Your task to perform on an android device: Go to Reddit.com Image 0: 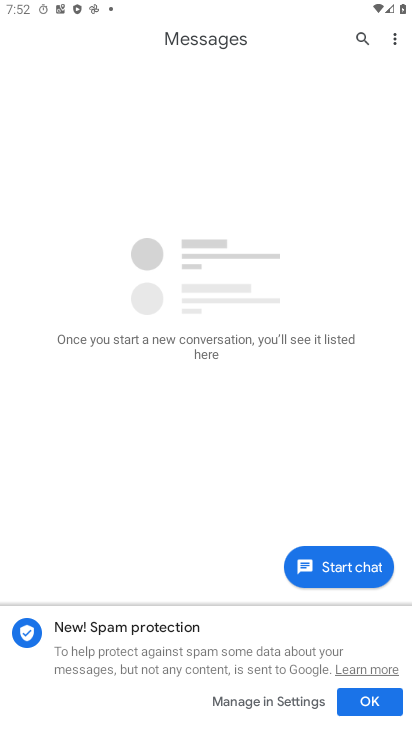
Step 0: press home button
Your task to perform on an android device: Go to Reddit.com Image 1: 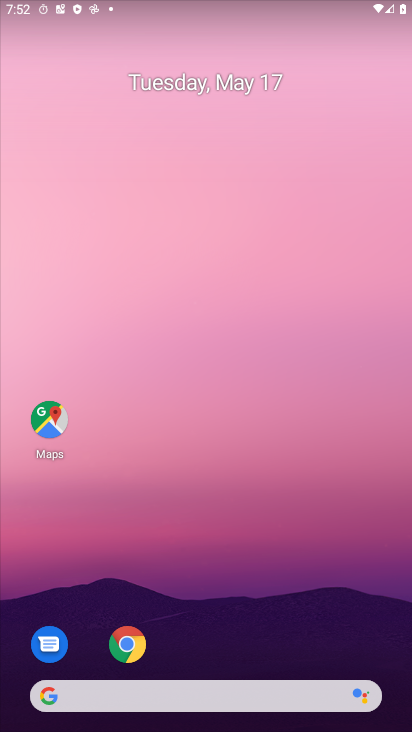
Step 1: drag from (368, 626) to (207, 97)
Your task to perform on an android device: Go to Reddit.com Image 2: 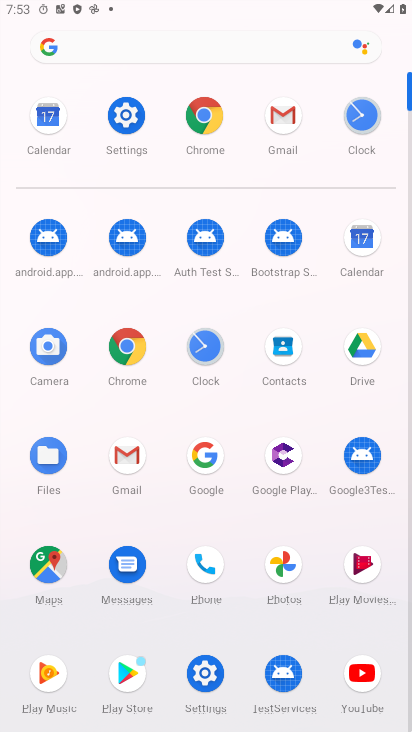
Step 2: click (204, 454)
Your task to perform on an android device: Go to Reddit.com Image 3: 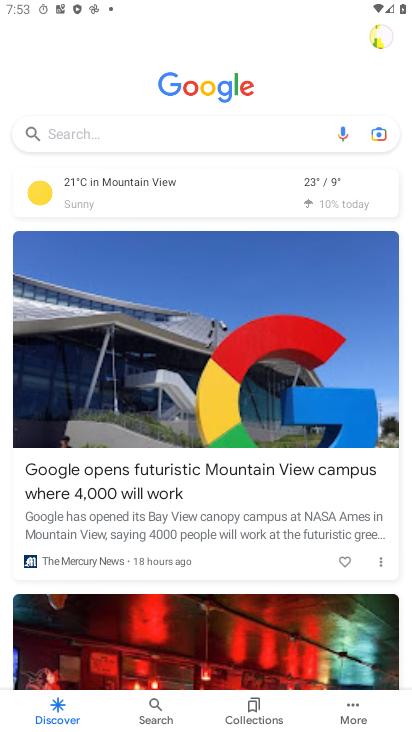
Step 3: click (110, 116)
Your task to perform on an android device: Go to Reddit.com Image 4: 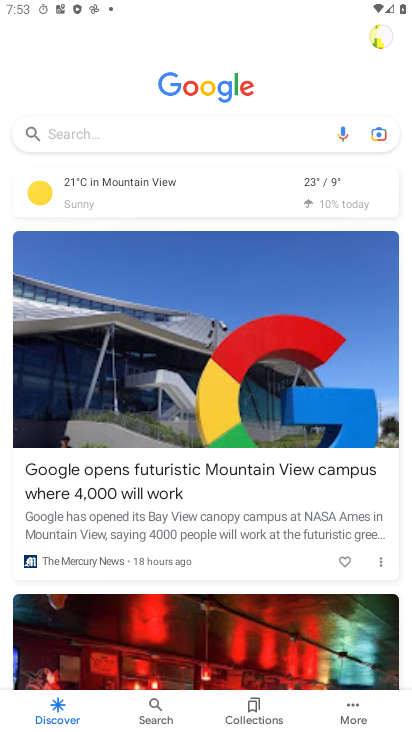
Step 4: click (78, 127)
Your task to perform on an android device: Go to Reddit.com Image 5: 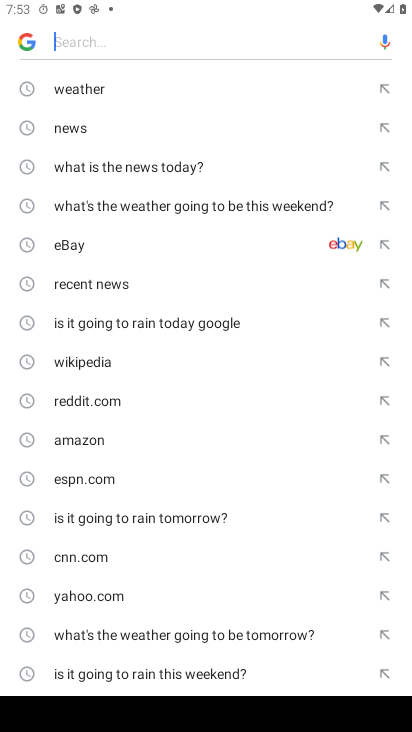
Step 5: click (131, 402)
Your task to perform on an android device: Go to Reddit.com Image 6: 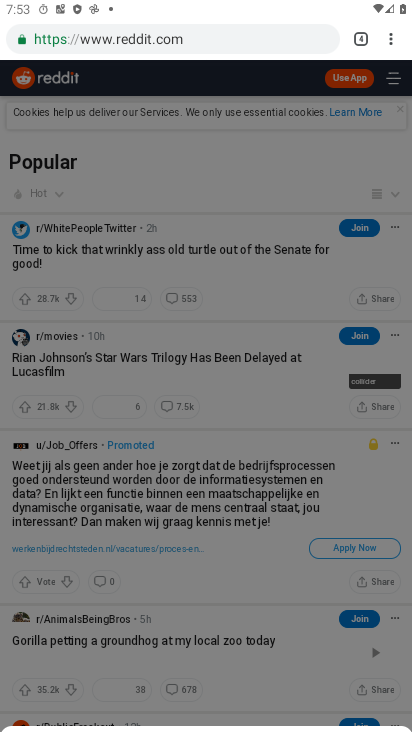
Step 6: task complete